Your task to perform on an android device: Open sound settings Image 0: 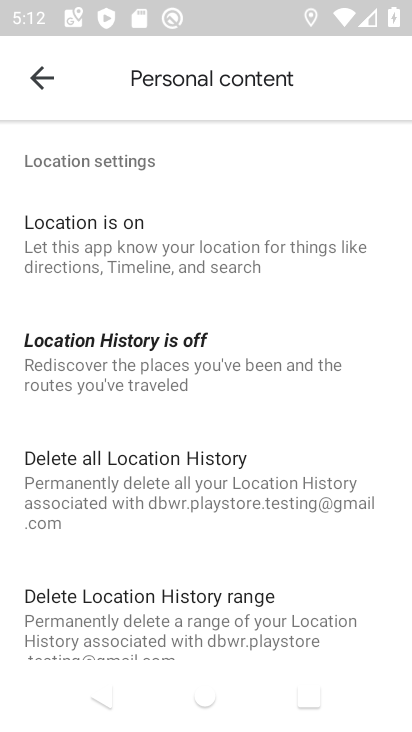
Step 0: press home button
Your task to perform on an android device: Open sound settings Image 1: 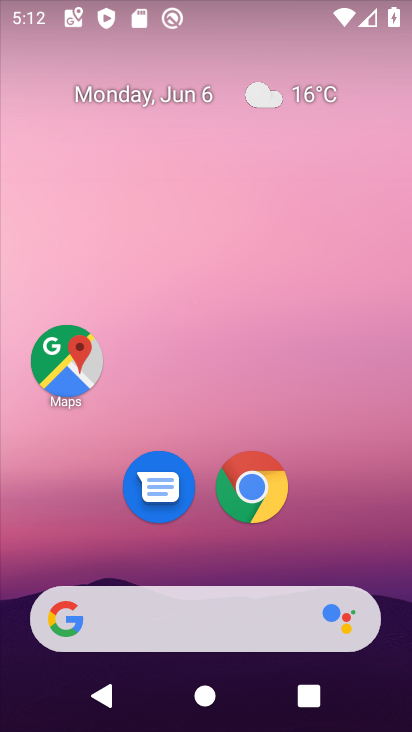
Step 1: drag from (343, 526) to (308, 41)
Your task to perform on an android device: Open sound settings Image 2: 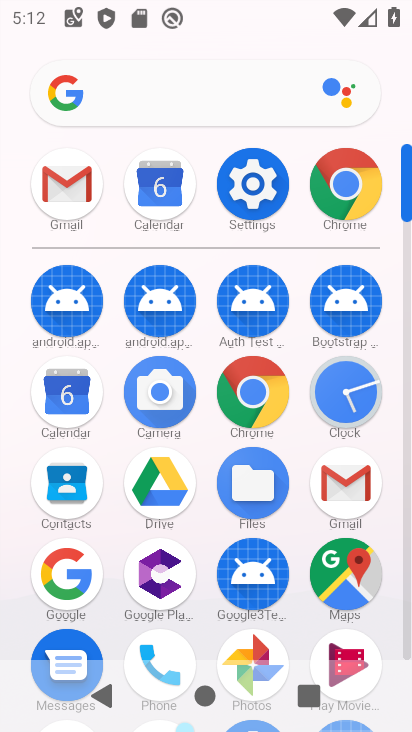
Step 2: click (239, 181)
Your task to perform on an android device: Open sound settings Image 3: 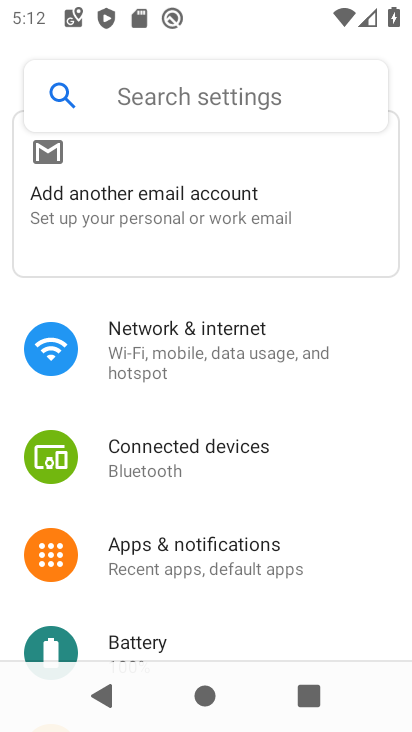
Step 3: drag from (191, 504) to (240, 117)
Your task to perform on an android device: Open sound settings Image 4: 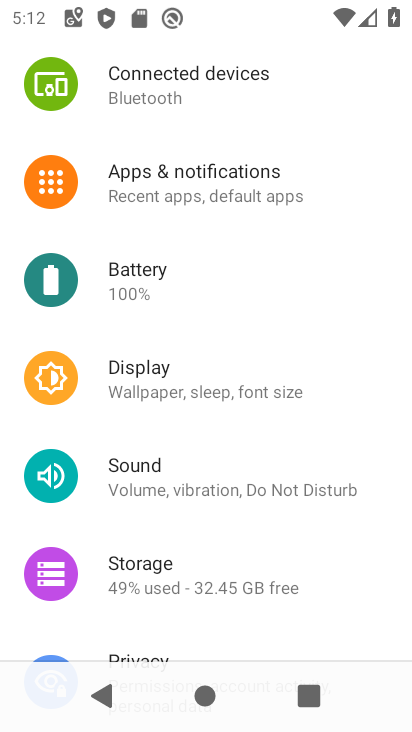
Step 4: click (233, 488)
Your task to perform on an android device: Open sound settings Image 5: 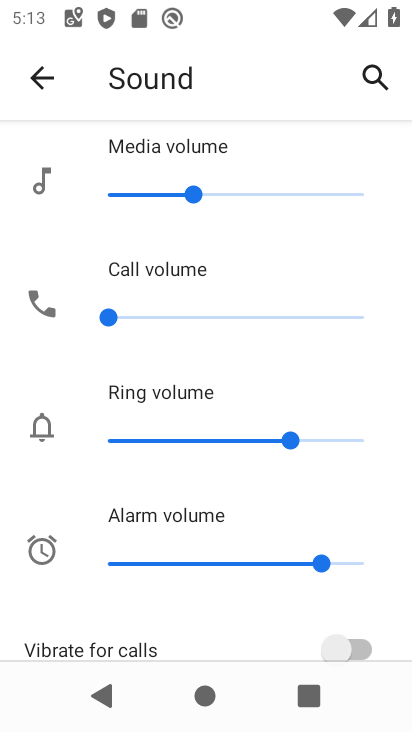
Step 5: task complete